Your task to perform on an android device: open wifi settings Image 0: 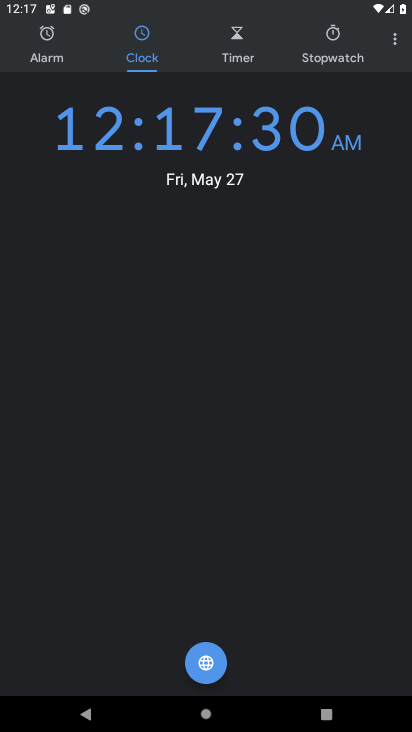
Step 0: press home button
Your task to perform on an android device: open wifi settings Image 1: 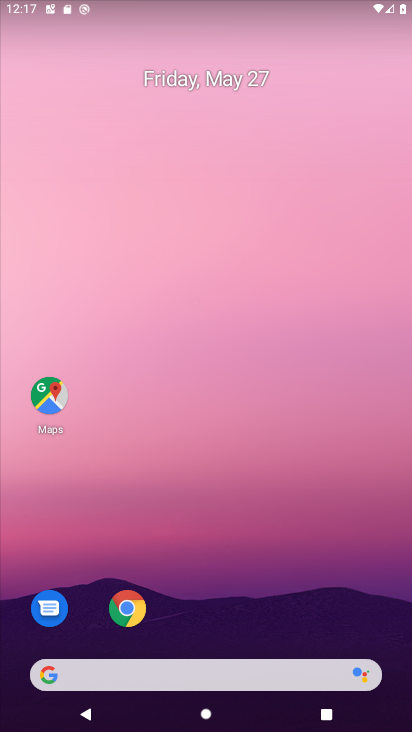
Step 1: drag from (401, 707) to (401, 224)
Your task to perform on an android device: open wifi settings Image 2: 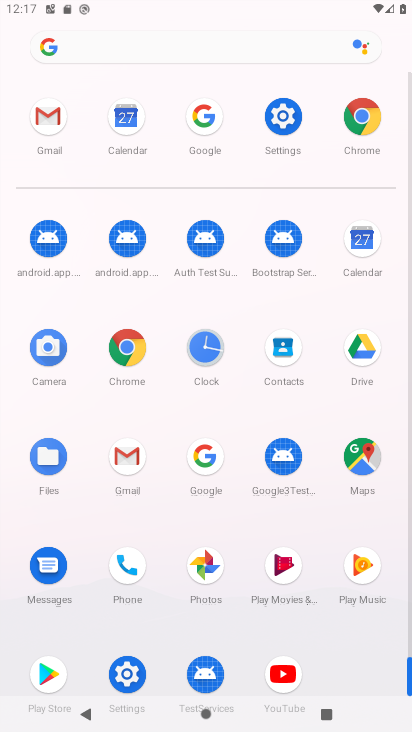
Step 2: click (274, 113)
Your task to perform on an android device: open wifi settings Image 3: 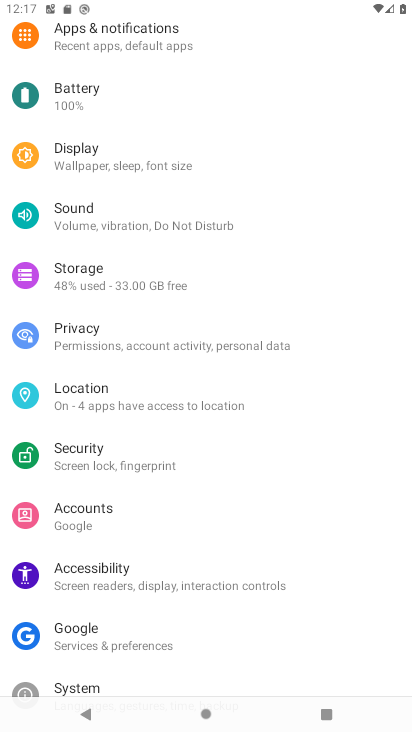
Step 3: drag from (305, 282) to (327, 524)
Your task to perform on an android device: open wifi settings Image 4: 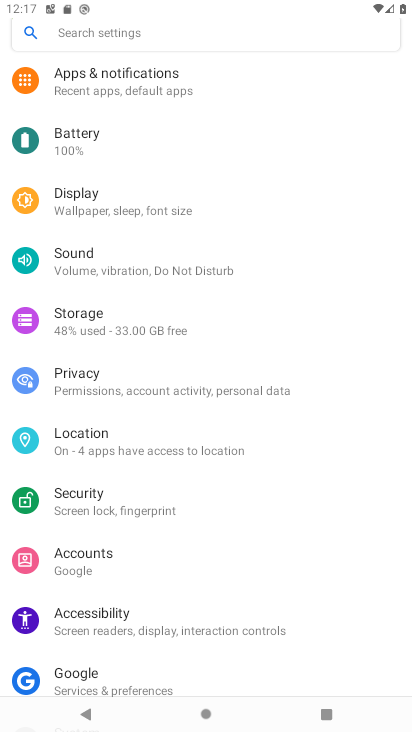
Step 4: drag from (271, 393) to (280, 516)
Your task to perform on an android device: open wifi settings Image 5: 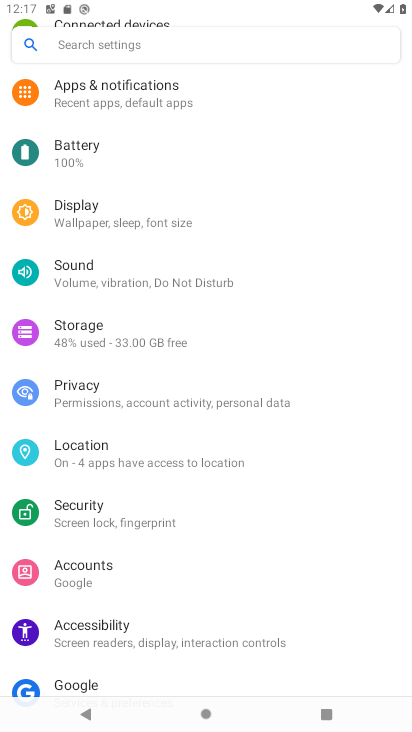
Step 5: drag from (310, 126) to (313, 583)
Your task to perform on an android device: open wifi settings Image 6: 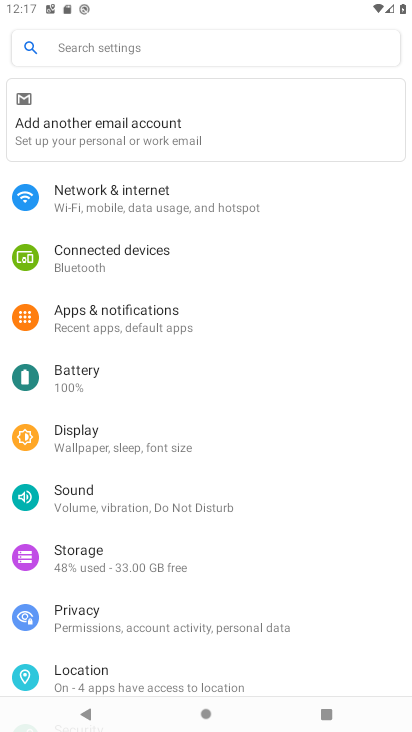
Step 6: click (136, 187)
Your task to perform on an android device: open wifi settings Image 7: 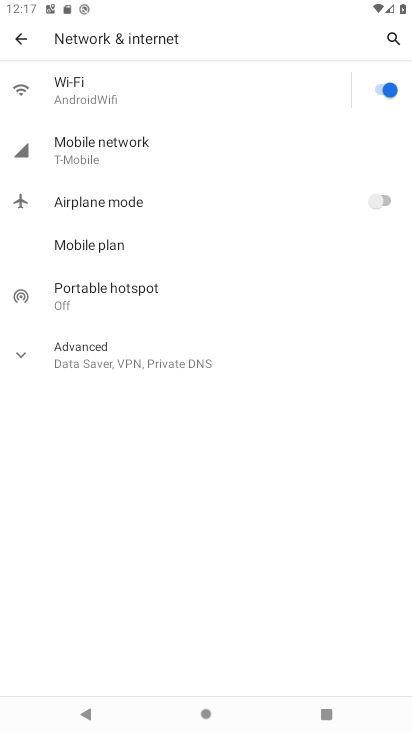
Step 7: click (215, 108)
Your task to perform on an android device: open wifi settings Image 8: 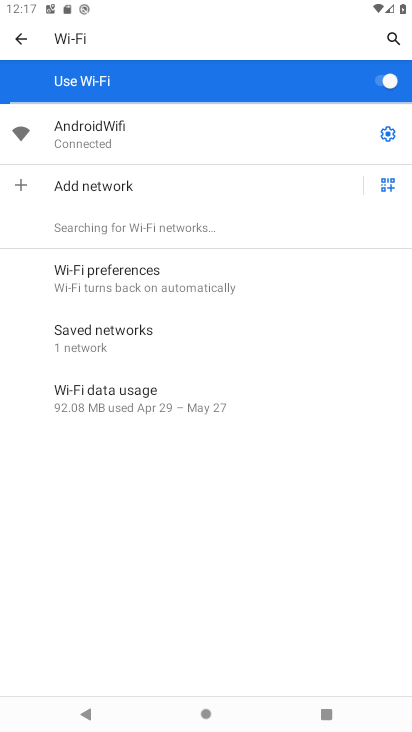
Step 8: click (383, 126)
Your task to perform on an android device: open wifi settings Image 9: 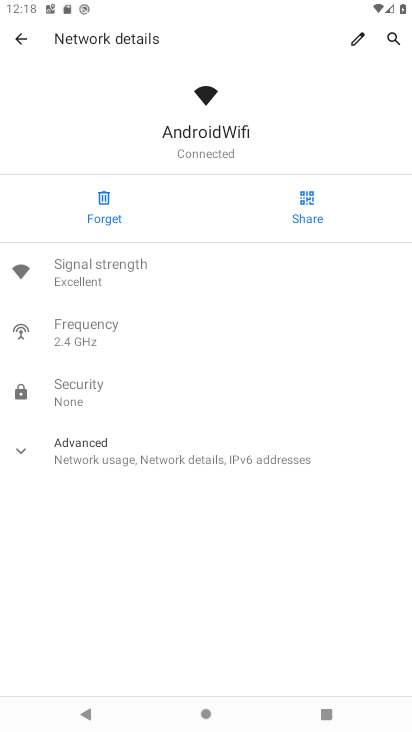
Step 9: task complete